Your task to perform on an android device: What's the weather today? Image 0: 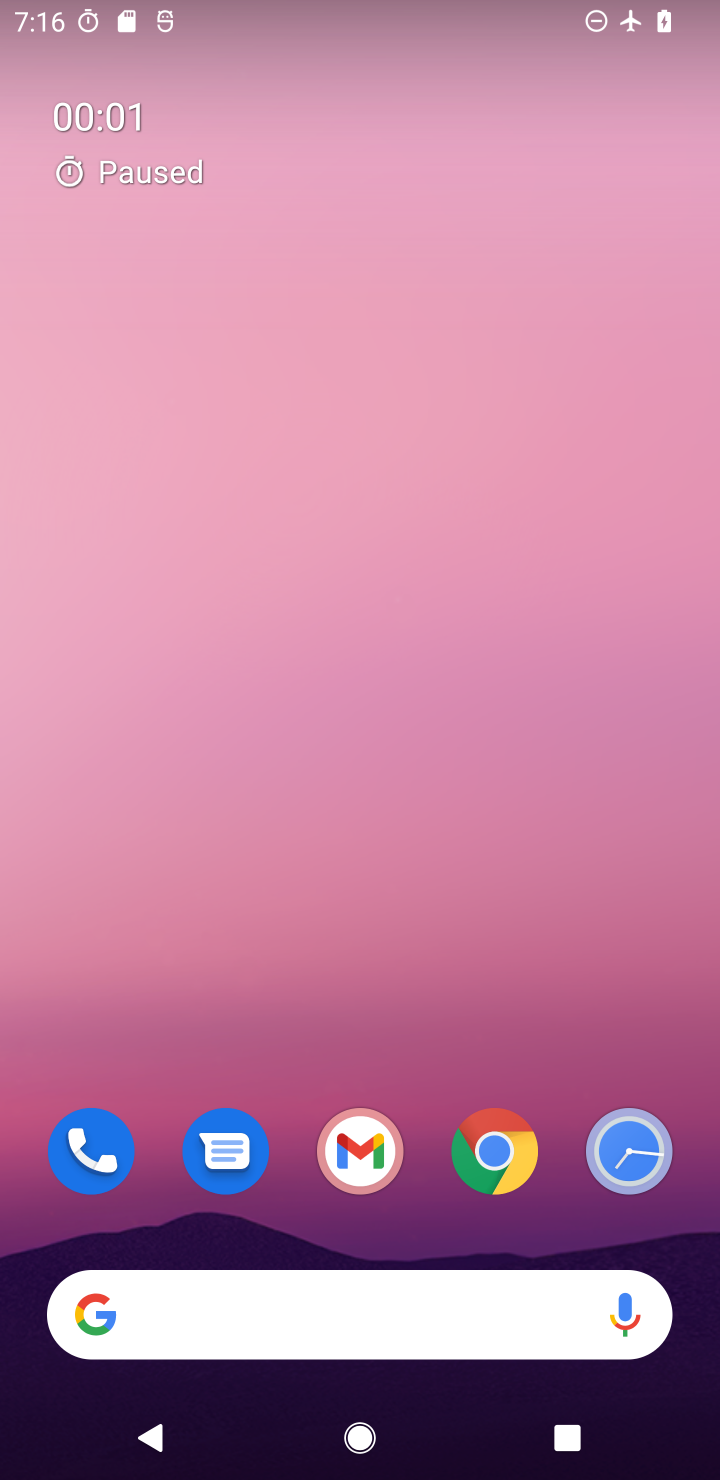
Step 0: drag from (466, 912) to (472, 41)
Your task to perform on an android device: What's the weather today? Image 1: 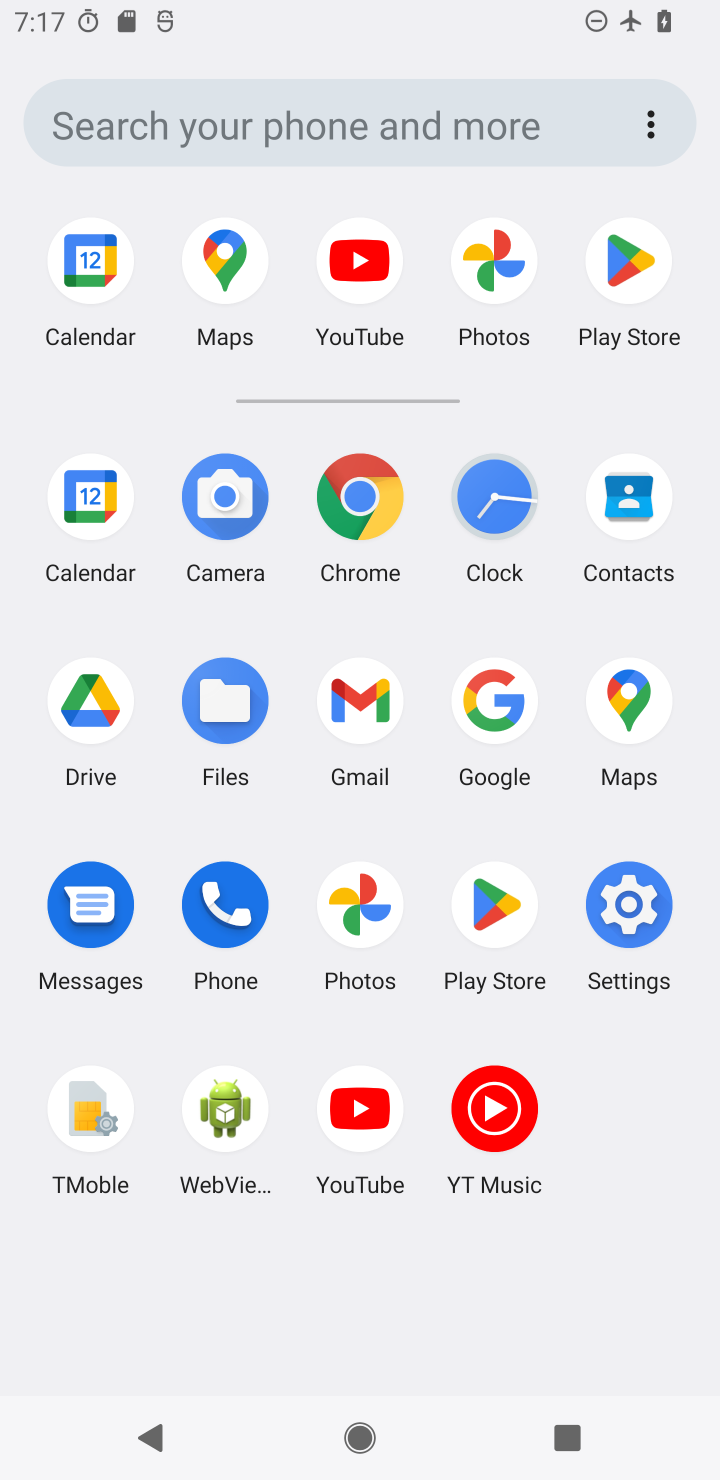
Step 1: click (361, 485)
Your task to perform on an android device: What's the weather today? Image 2: 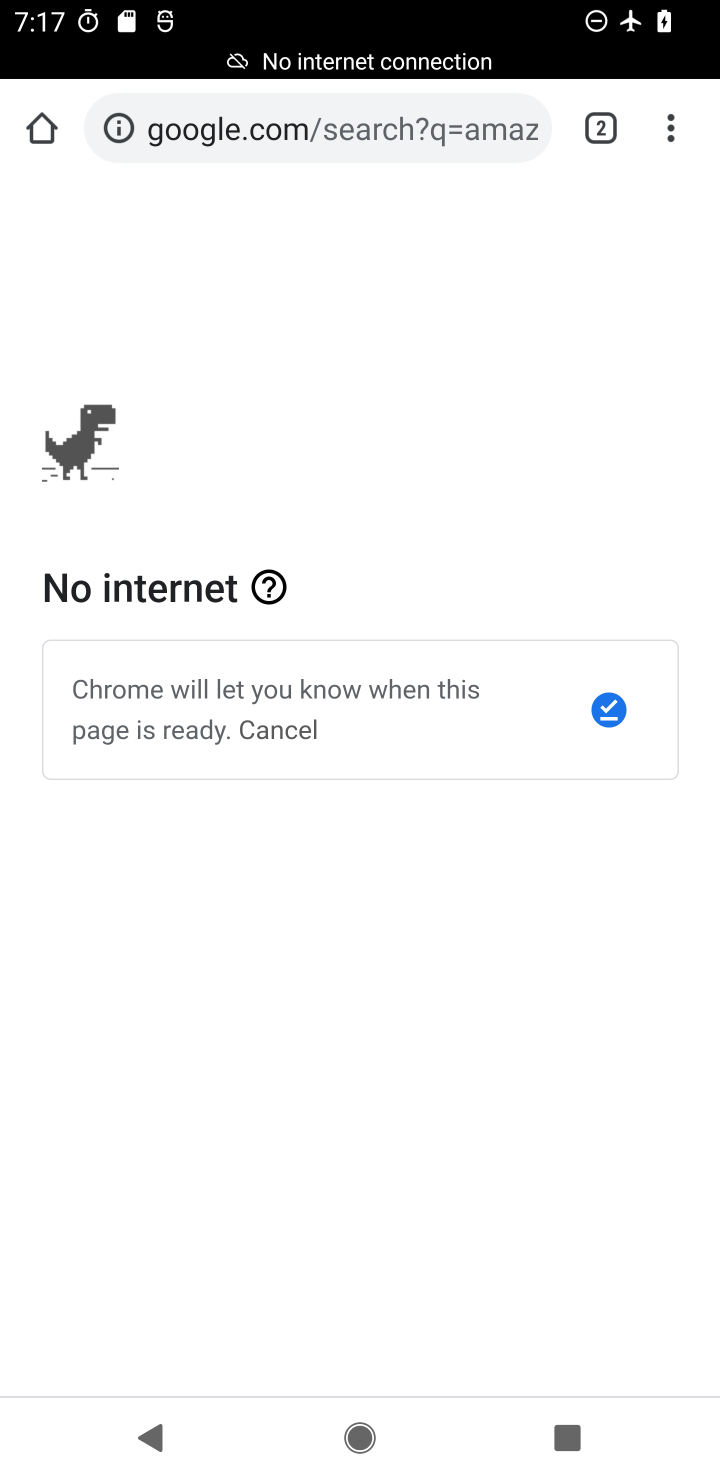
Step 2: click (306, 117)
Your task to perform on an android device: What's the weather today? Image 3: 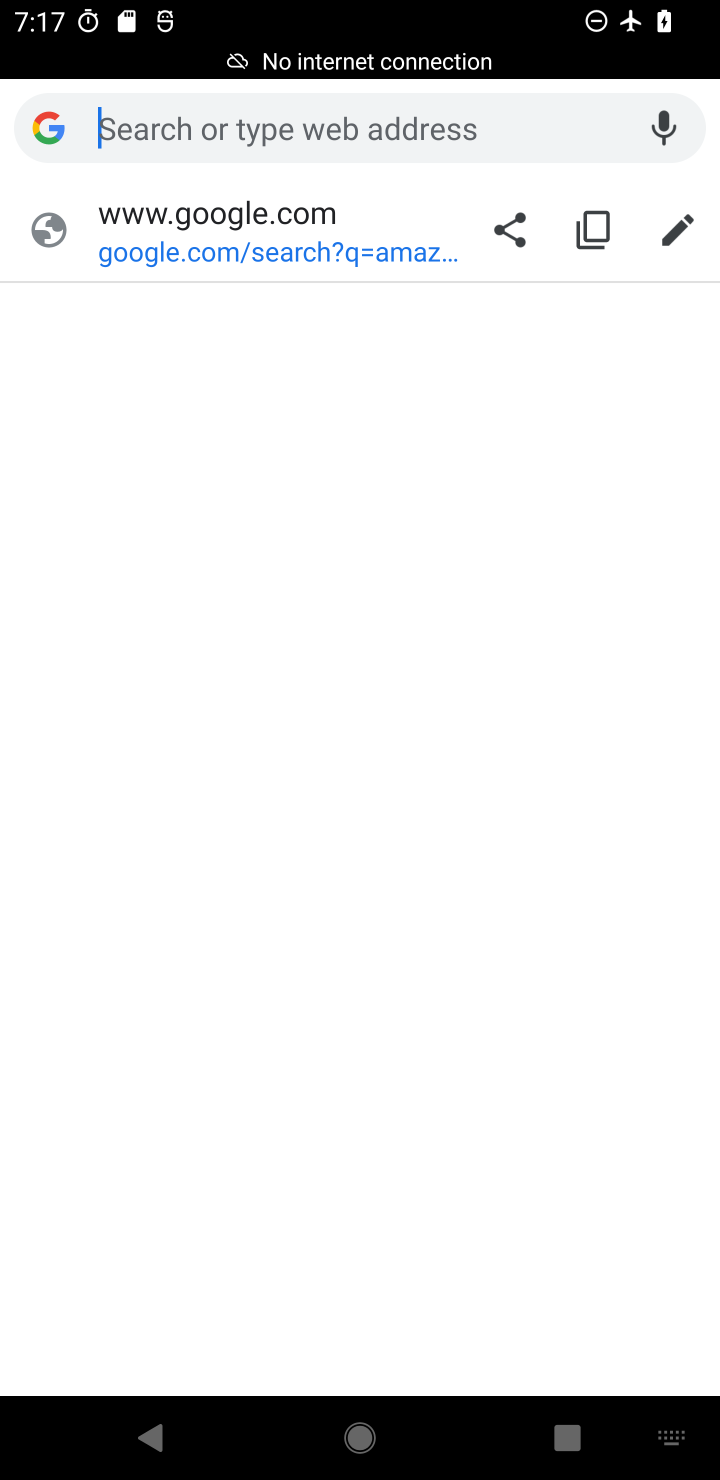
Step 3: type "weather"
Your task to perform on an android device: What's the weather today? Image 4: 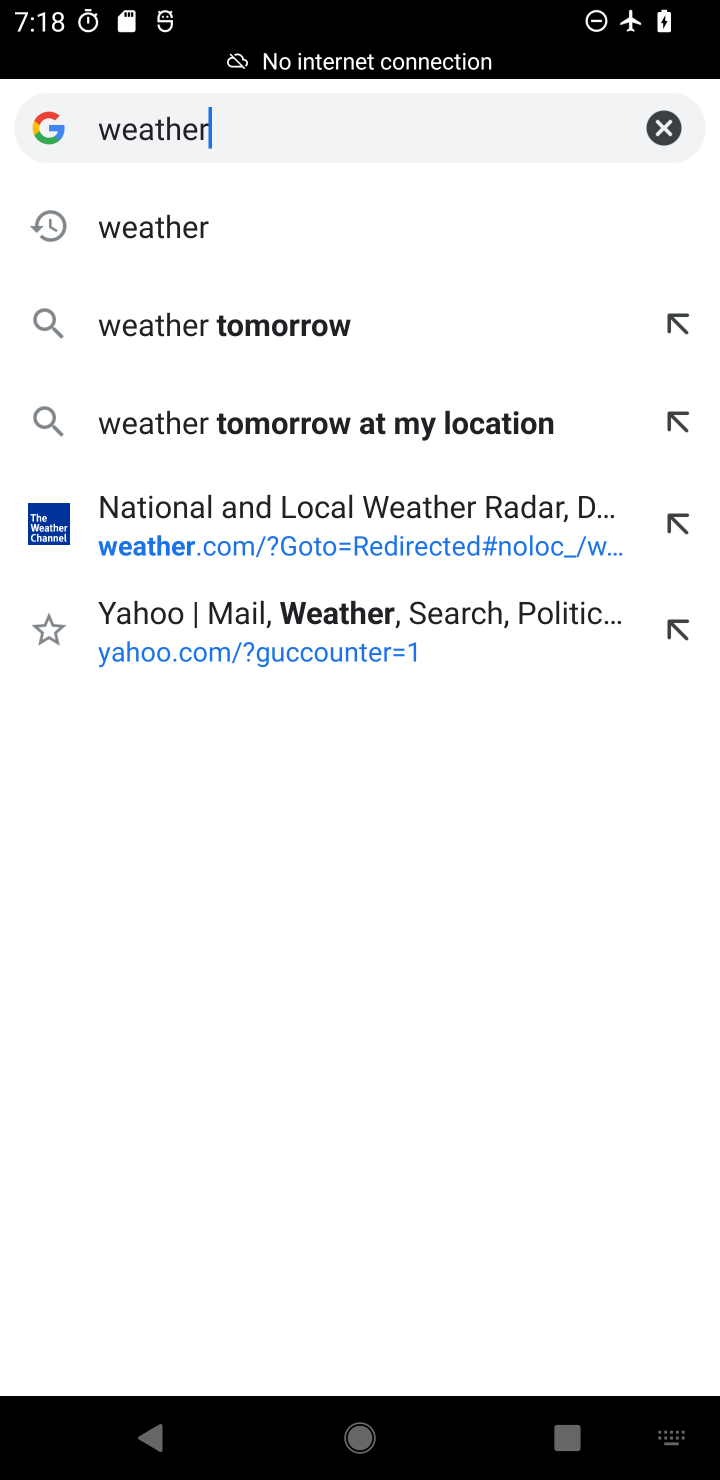
Step 4: click (155, 235)
Your task to perform on an android device: What's the weather today? Image 5: 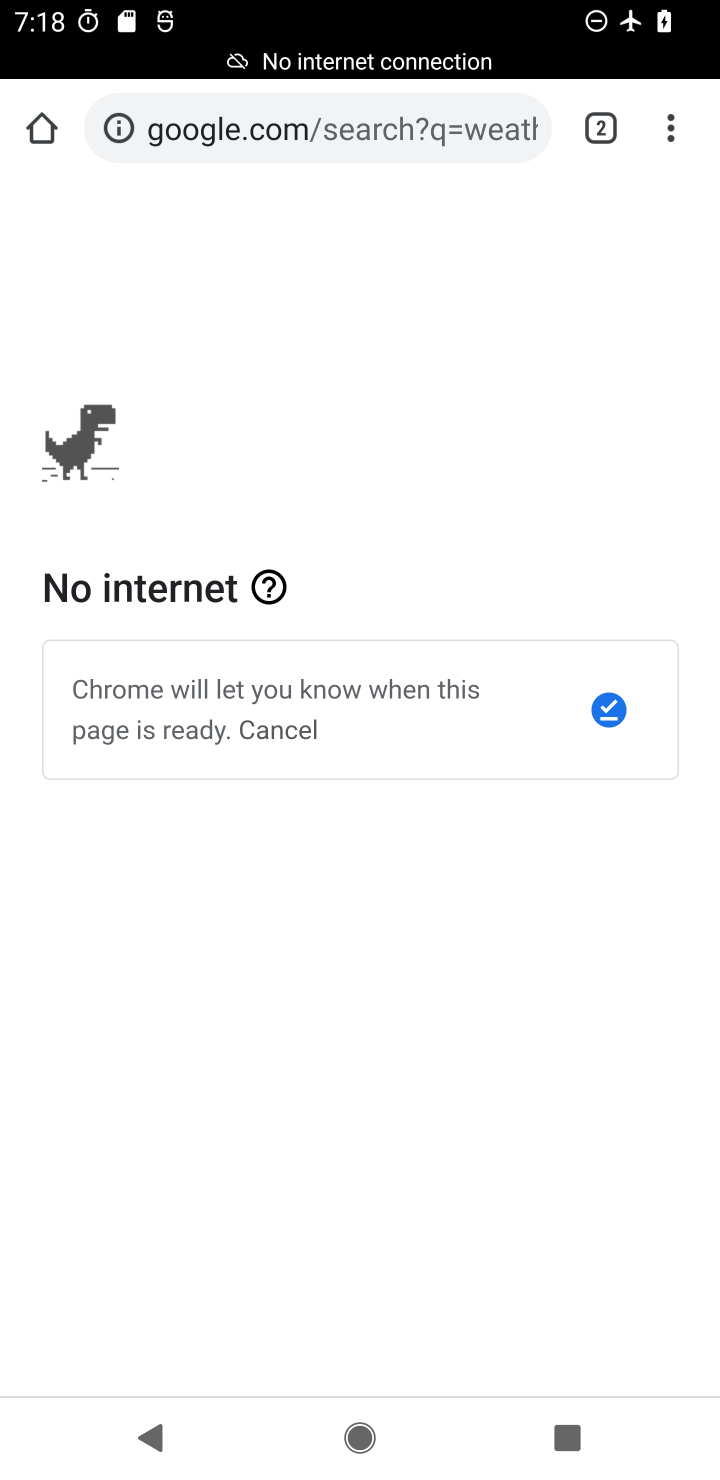
Step 5: task complete